Your task to perform on an android device: change the upload size in google photos Image 0: 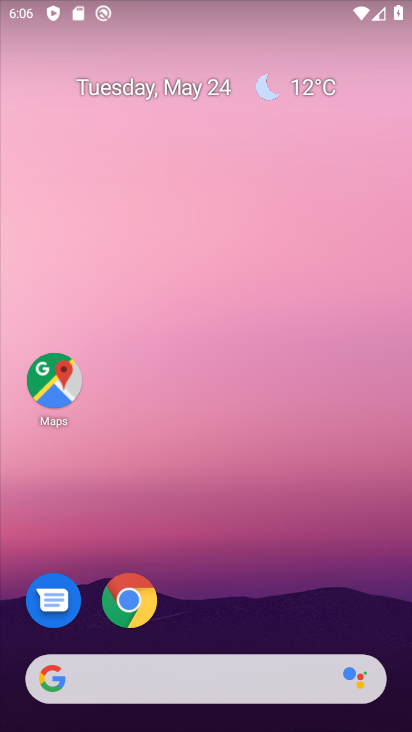
Step 0: drag from (288, 605) to (248, 65)
Your task to perform on an android device: change the upload size in google photos Image 1: 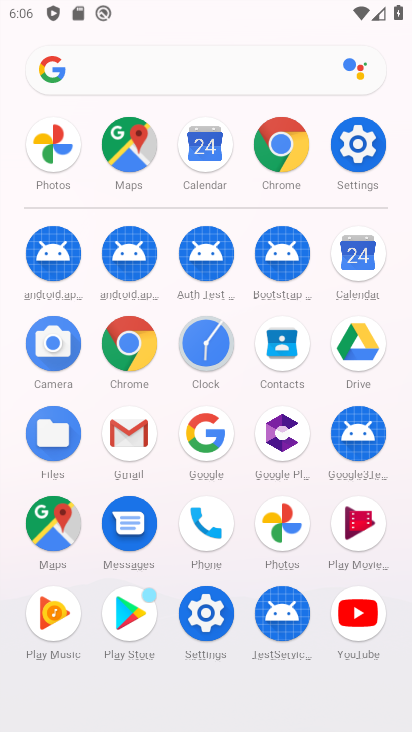
Step 1: click (295, 529)
Your task to perform on an android device: change the upload size in google photos Image 2: 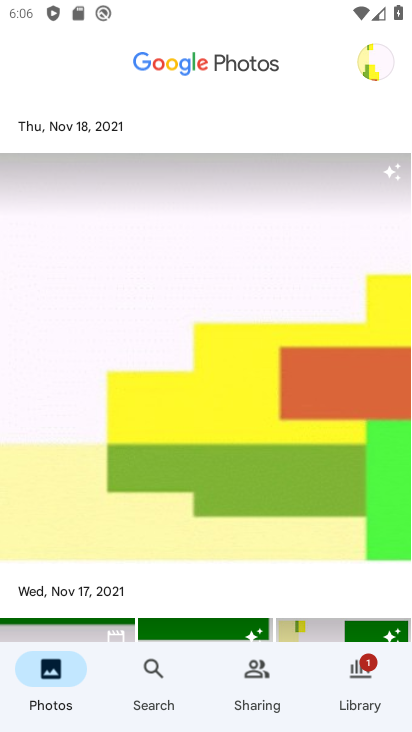
Step 2: click (366, 69)
Your task to perform on an android device: change the upload size in google photos Image 3: 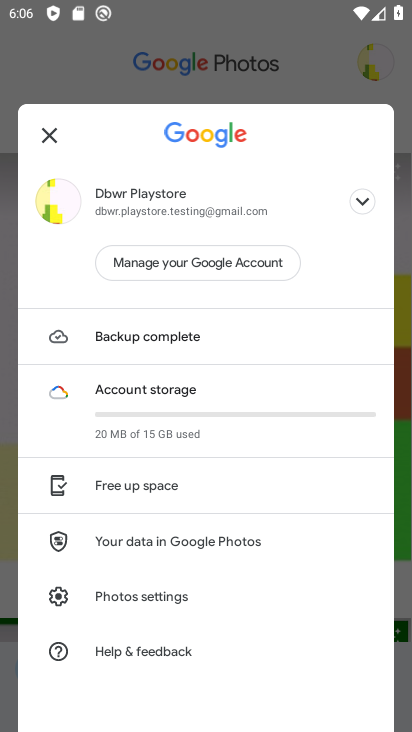
Step 3: click (184, 600)
Your task to perform on an android device: change the upload size in google photos Image 4: 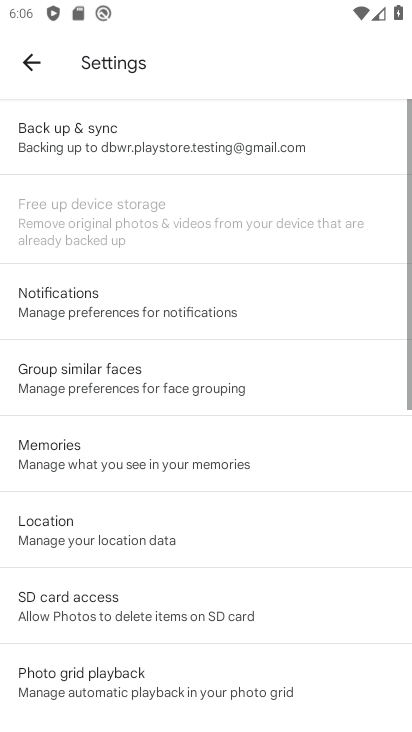
Step 4: click (156, 143)
Your task to perform on an android device: change the upload size in google photos Image 5: 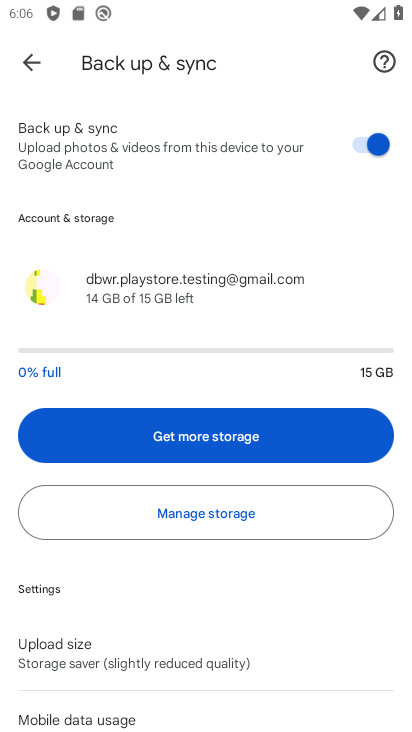
Step 5: task complete